Your task to perform on an android device: Check the news Image 0: 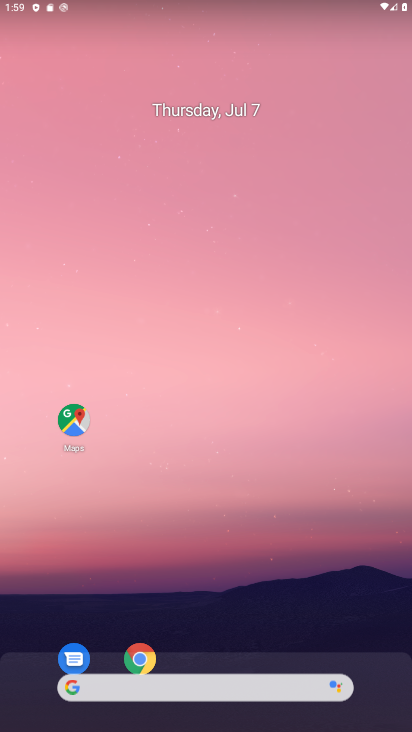
Step 0: drag from (4, 243) to (409, 206)
Your task to perform on an android device: Check the news Image 1: 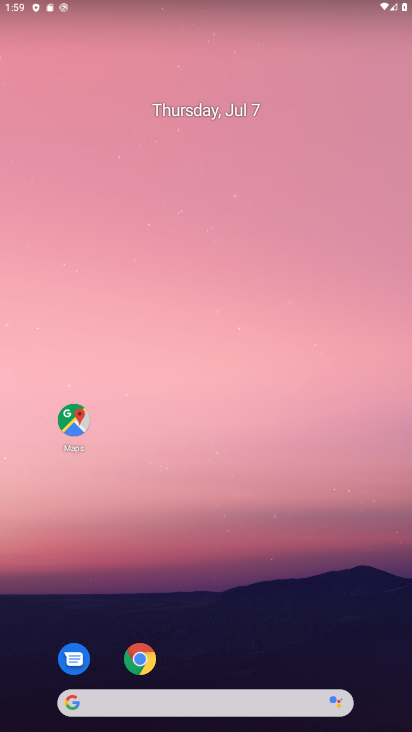
Step 1: task complete